Your task to perform on an android device: turn off location Image 0: 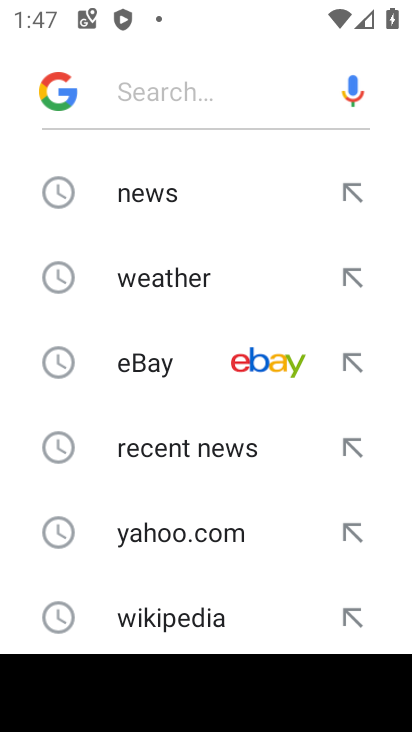
Step 0: press home button
Your task to perform on an android device: turn off location Image 1: 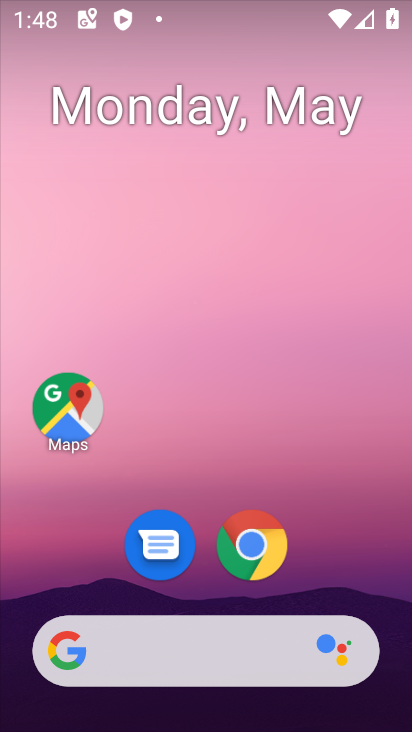
Step 1: drag from (155, 706) to (150, 7)
Your task to perform on an android device: turn off location Image 2: 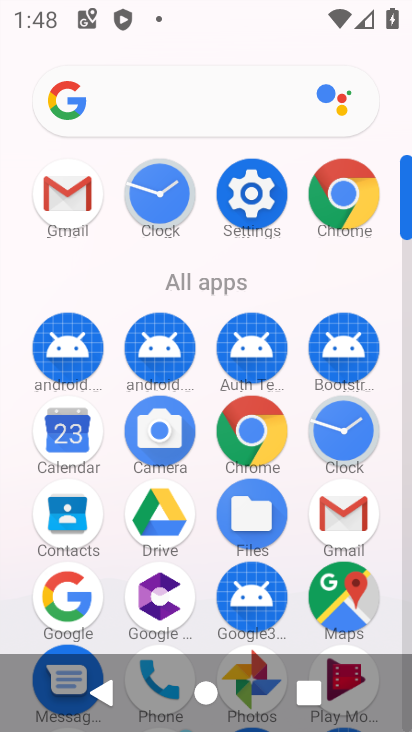
Step 2: click (239, 195)
Your task to perform on an android device: turn off location Image 3: 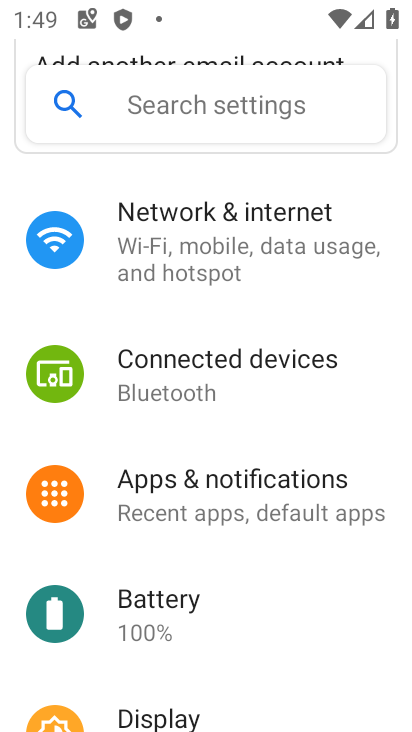
Step 3: drag from (237, 570) to (235, 219)
Your task to perform on an android device: turn off location Image 4: 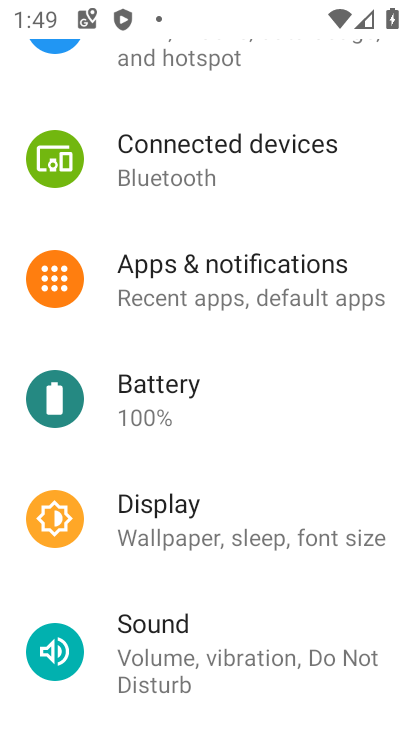
Step 4: drag from (249, 659) to (238, 172)
Your task to perform on an android device: turn off location Image 5: 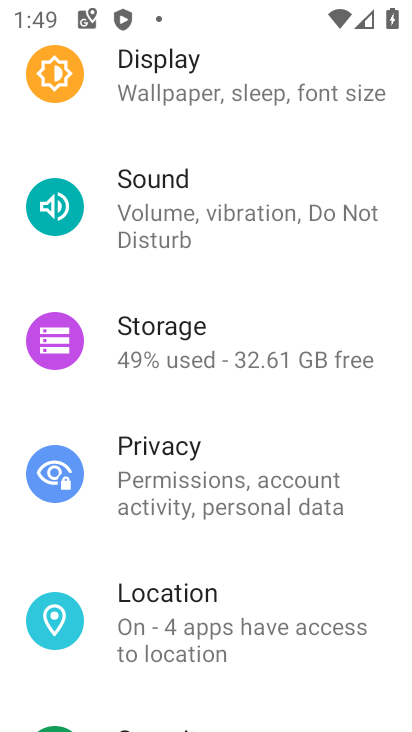
Step 5: click (260, 631)
Your task to perform on an android device: turn off location Image 6: 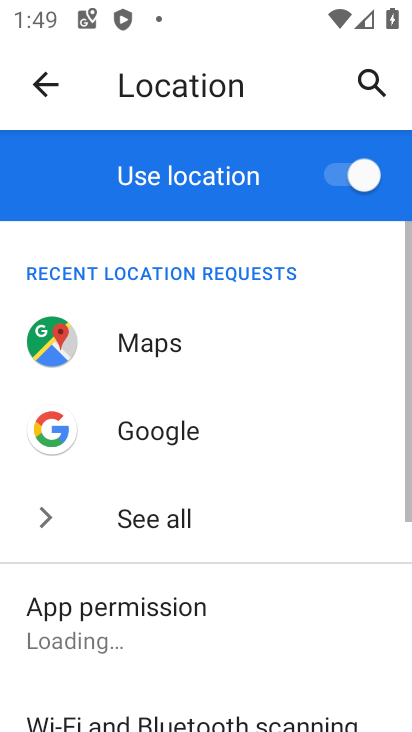
Step 6: click (345, 176)
Your task to perform on an android device: turn off location Image 7: 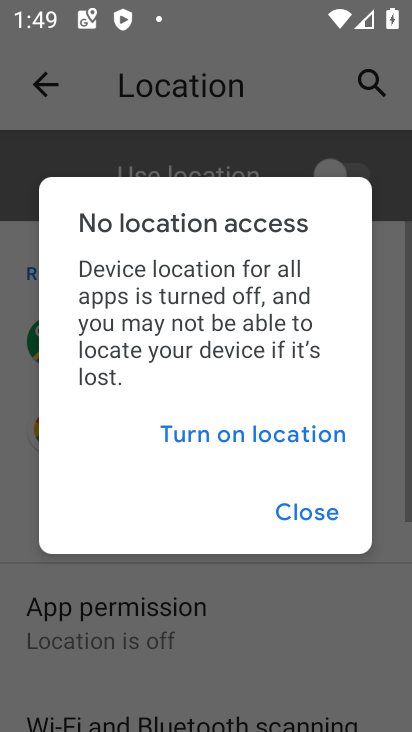
Step 7: task complete